Your task to perform on an android device: Open my contact list Image 0: 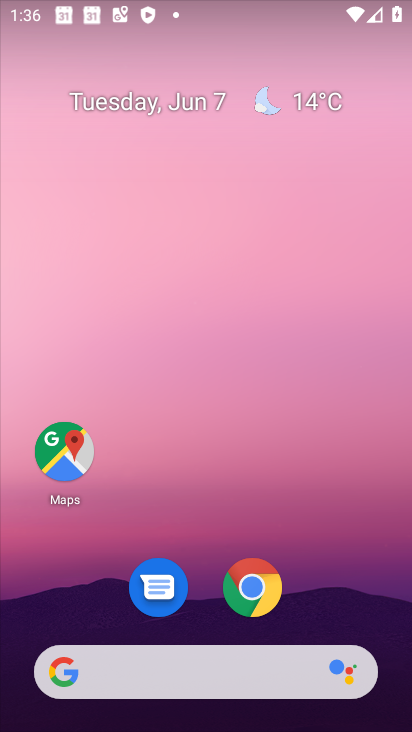
Step 0: drag from (183, 640) to (259, 164)
Your task to perform on an android device: Open my contact list Image 1: 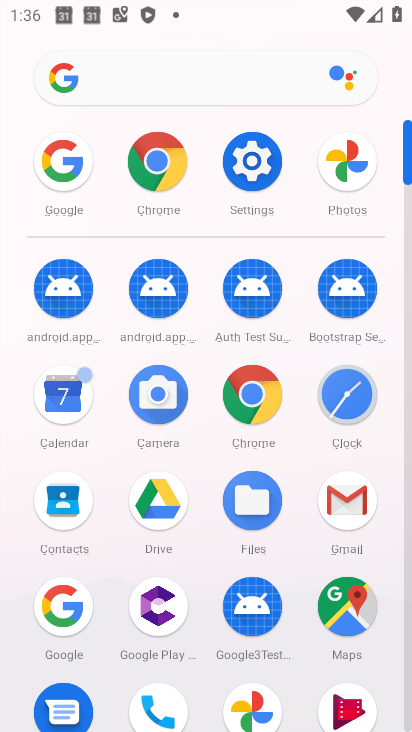
Step 1: click (79, 509)
Your task to perform on an android device: Open my contact list Image 2: 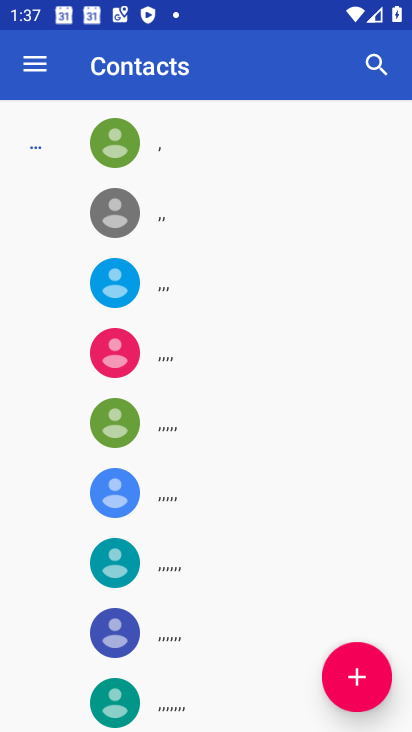
Step 2: task complete